Your task to perform on an android device: refresh tabs in the chrome app Image 0: 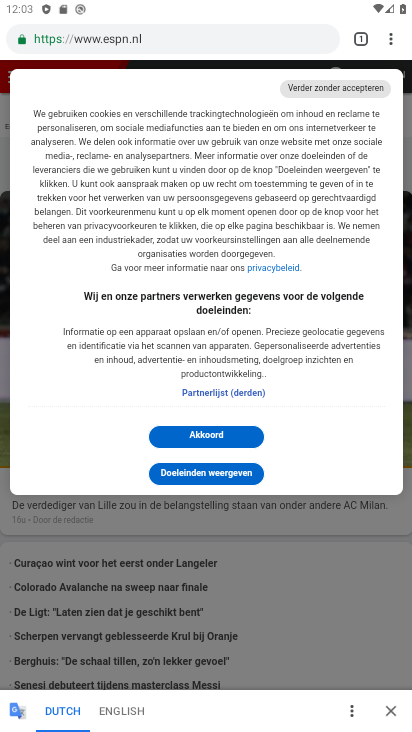
Step 0: click (388, 37)
Your task to perform on an android device: refresh tabs in the chrome app Image 1: 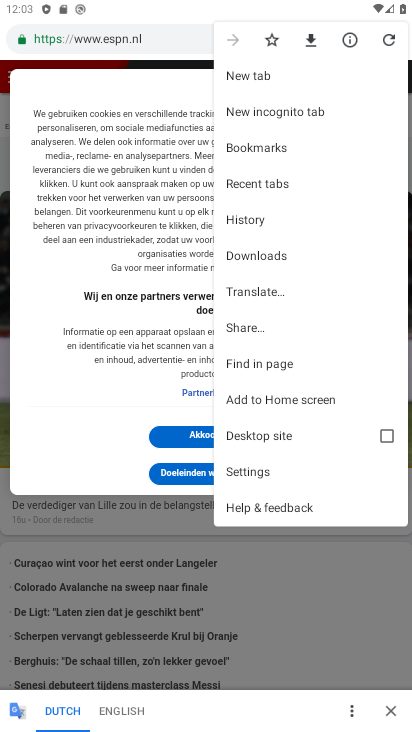
Step 1: click (385, 41)
Your task to perform on an android device: refresh tabs in the chrome app Image 2: 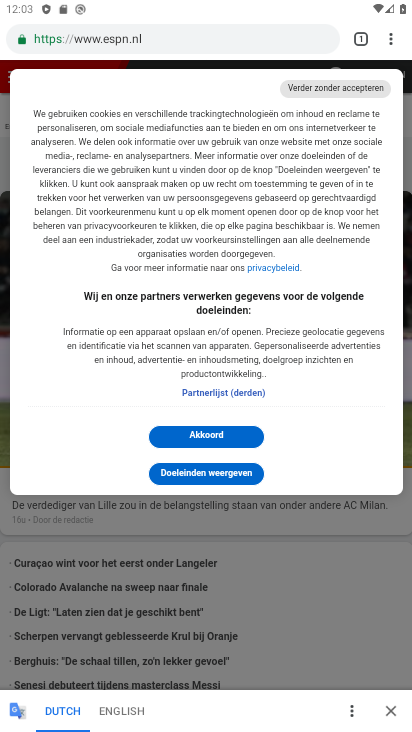
Step 2: task complete